Your task to perform on an android device: Go to battery settings Image 0: 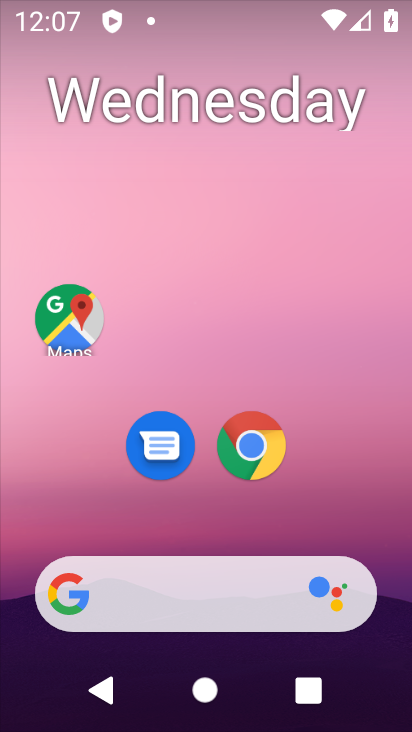
Step 0: drag from (197, 514) to (223, 175)
Your task to perform on an android device: Go to battery settings Image 1: 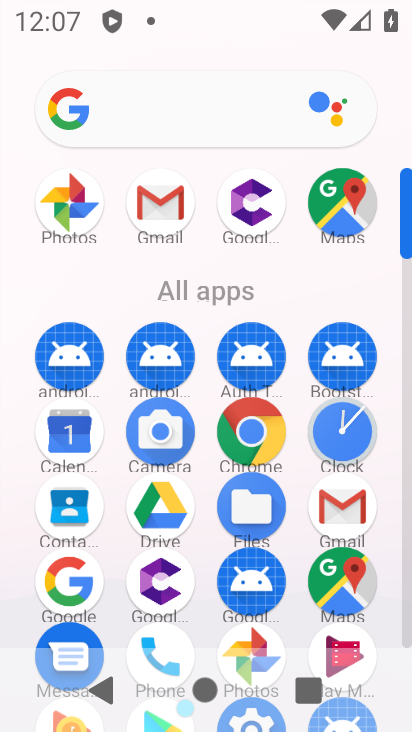
Step 1: drag from (303, 539) to (332, 365)
Your task to perform on an android device: Go to battery settings Image 2: 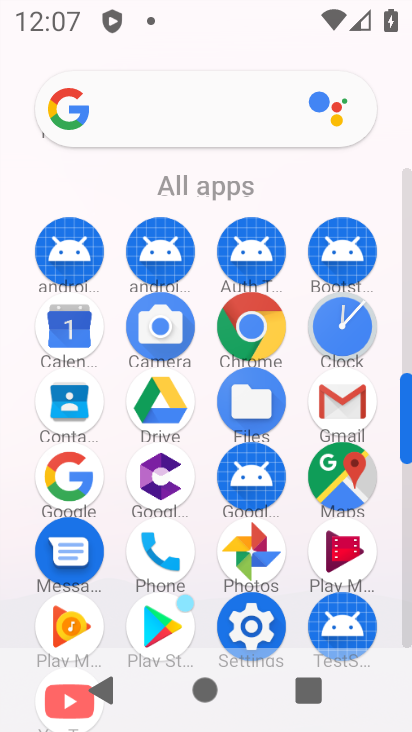
Step 2: click (257, 629)
Your task to perform on an android device: Go to battery settings Image 3: 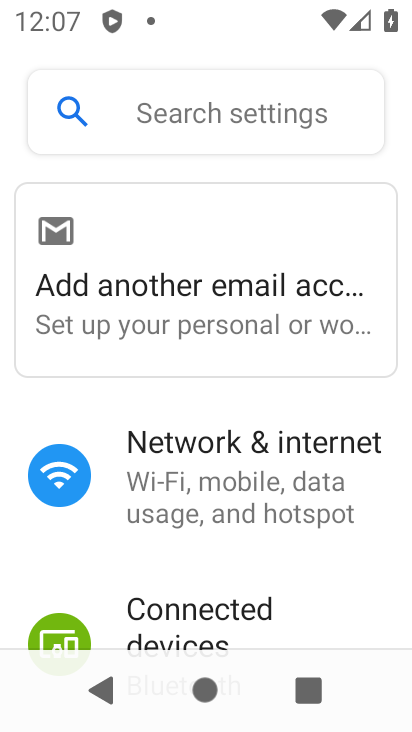
Step 3: drag from (293, 619) to (391, 349)
Your task to perform on an android device: Go to battery settings Image 4: 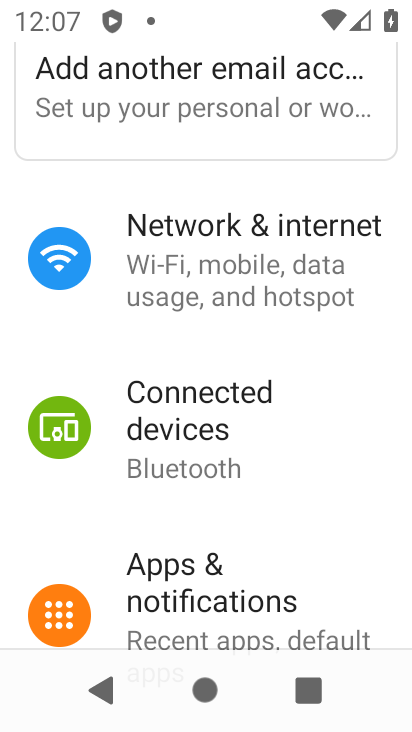
Step 4: drag from (321, 613) to (399, 340)
Your task to perform on an android device: Go to battery settings Image 5: 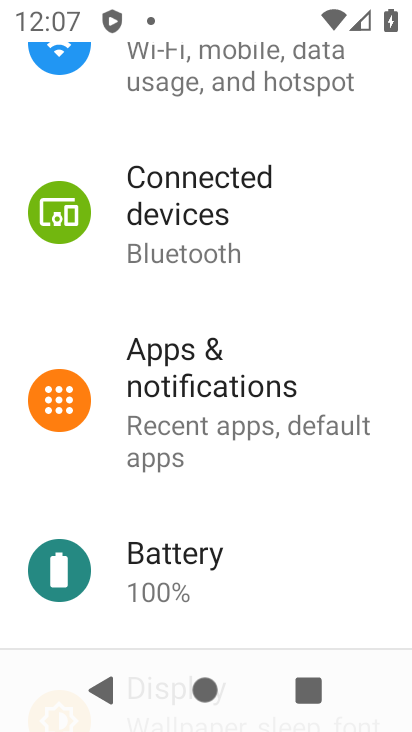
Step 5: click (156, 585)
Your task to perform on an android device: Go to battery settings Image 6: 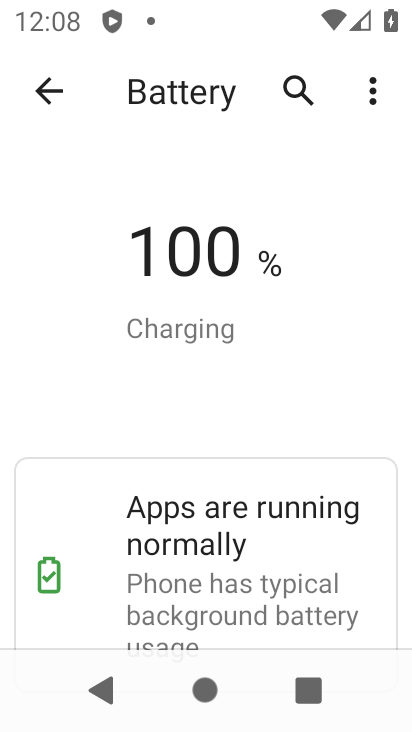
Step 6: task complete